Your task to perform on an android device: turn on wifi Image 0: 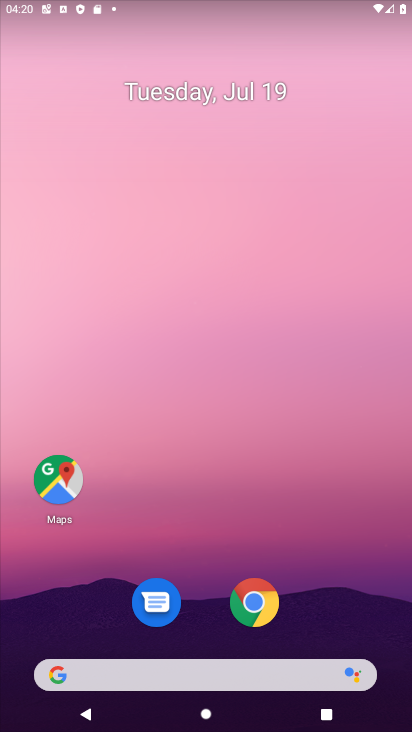
Step 0: drag from (316, 5) to (296, 403)
Your task to perform on an android device: turn on wifi Image 1: 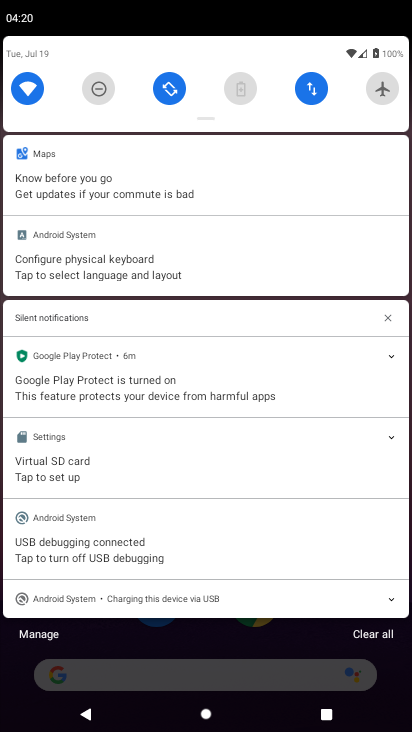
Step 1: task complete